Your task to perform on an android device: Open the stopwatch Image 0: 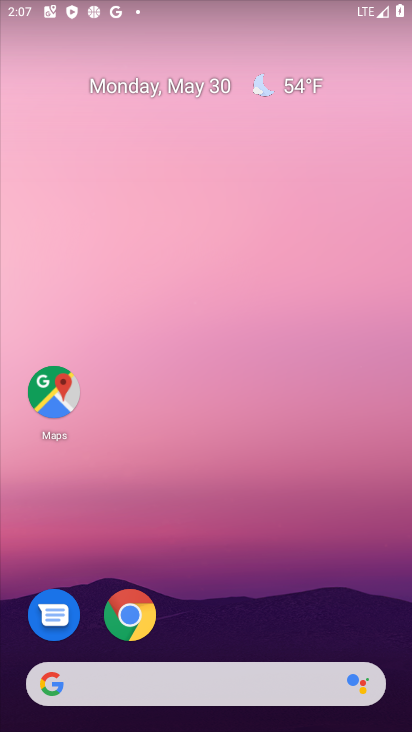
Step 0: drag from (324, 578) to (308, 217)
Your task to perform on an android device: Open the stopwatch Image 1: 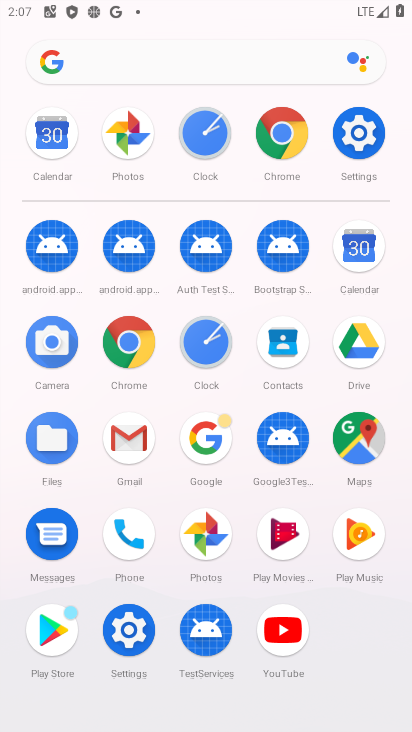
Step 1: click (218, 344)
Your task to perform on an android device: Open the stopwatch Image 2: 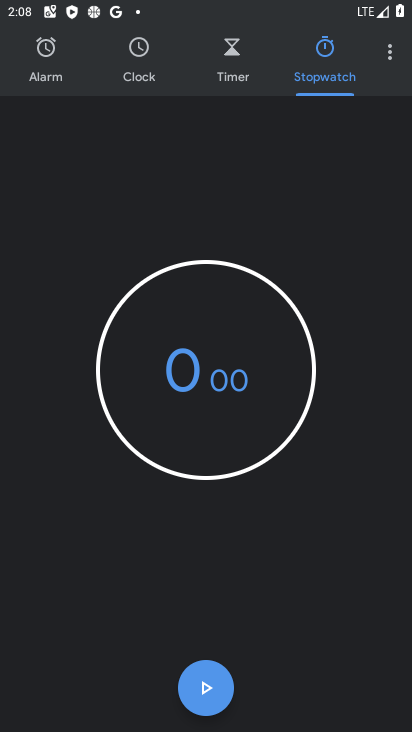
Step 2: task complete